Your task to perform on an android device: see tabs open on other devices in the chrome app Image 0: 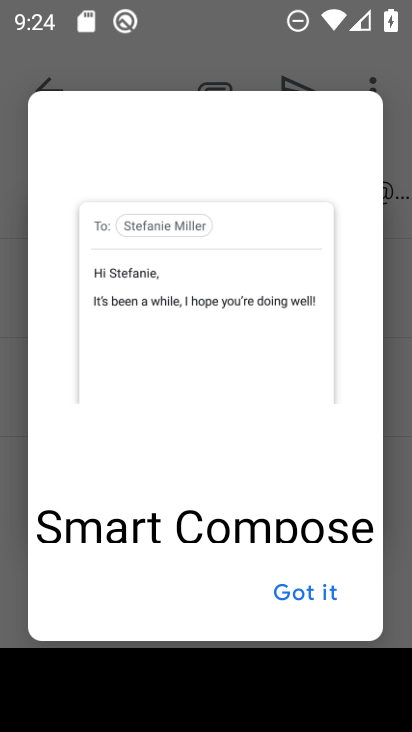
Step 0: press home button
Your task to perform on an android device: see tabs open on other devices in the chrome app Image 1: 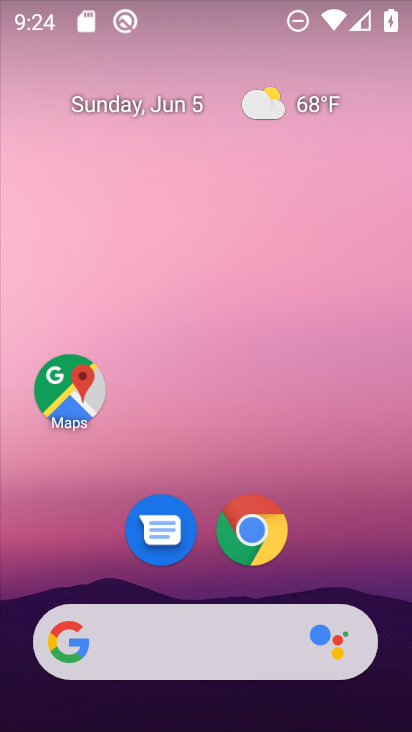
Step 1: click (256, 535)
Your task to perform on an android device: see tabs open on other devices in the chrome app Image 2: 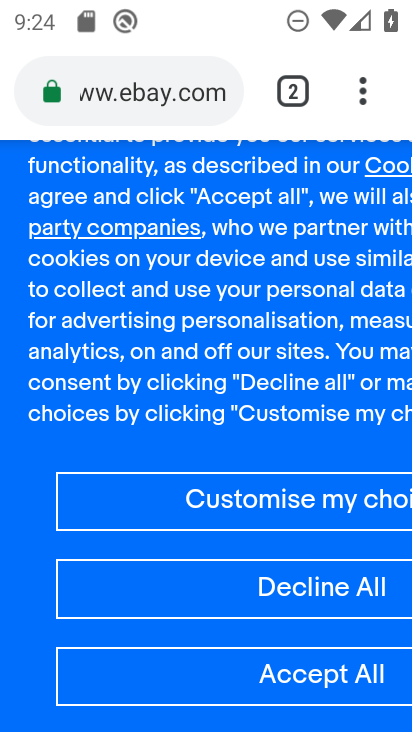
Step 2: click (359, 104)
Your task to perform on an android device: see tabs open on other devices in the chrome app Image 3: 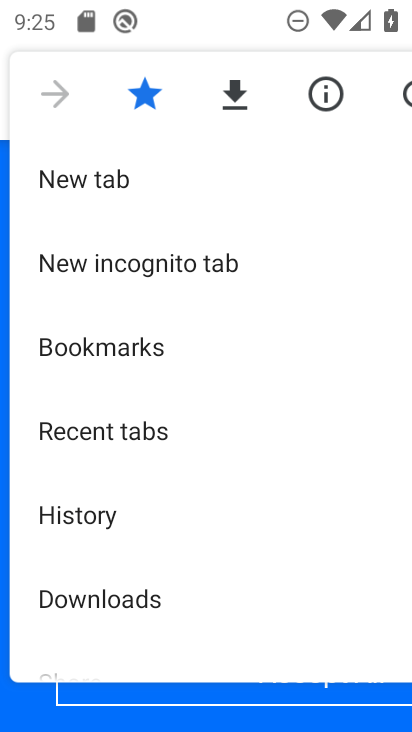
Step 3: click (109, 425)
Your task to perform on an android device: see tabs open on other devices in the chrome app Image 4: 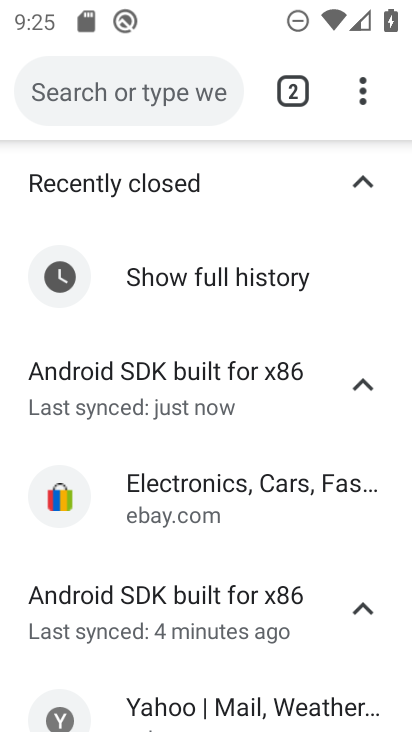
Step 4: task complete